Your task to perform on an android device: turn on sleep mode Image 0: 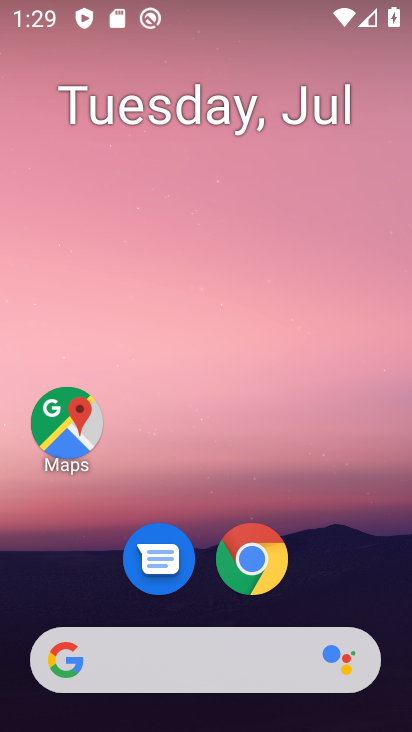
Step 0: drag from (354, 515) to (369, 164)
Your task to perform on an android device: turn on sleep mode Image 1: 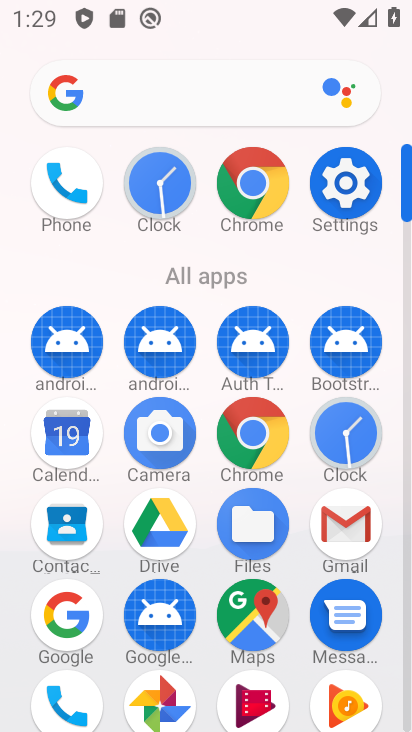
Step 1: click (356, 209)
Your task to perform on an android device: turn on sleep mode Image 2: 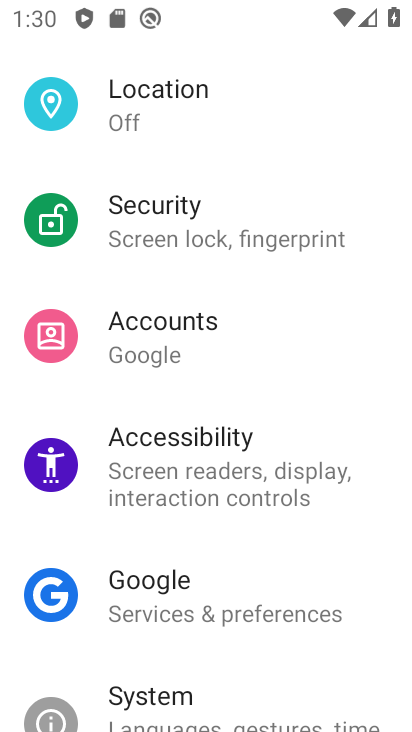
Step 2: drag from (372, 413) to (361, 312)
Your task to perform on an android device: turn on sleep mode Image 3: 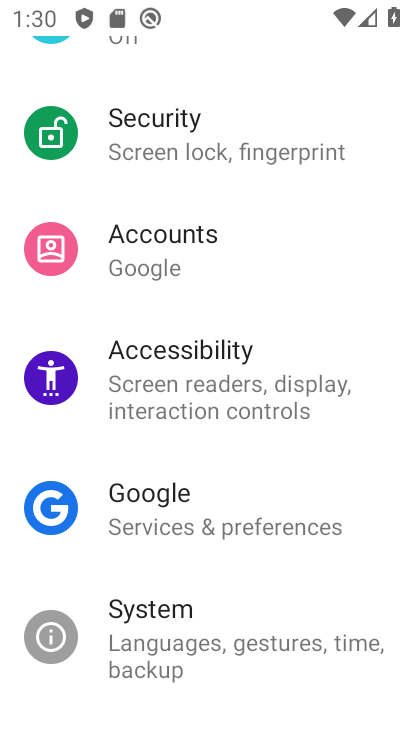
Step 3: drag from (351, 457) to (349, 345)
Your task to perform on an android device: turn on sleep mode Image 4: 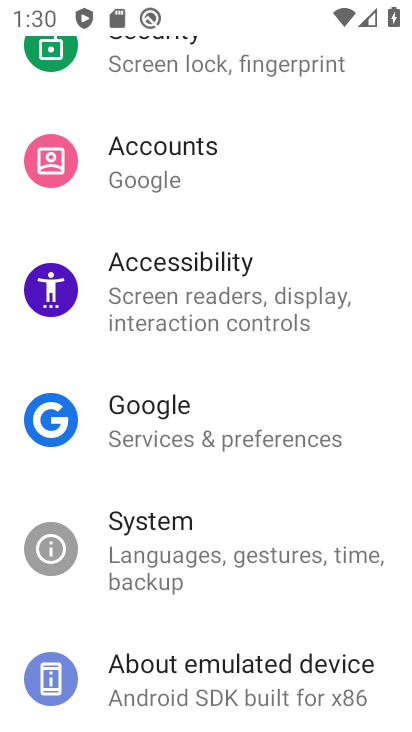
Step 4: drag from (372, 484) to (374, 367)
Your task to perform on an android device: turn on sleep mode Image 5: 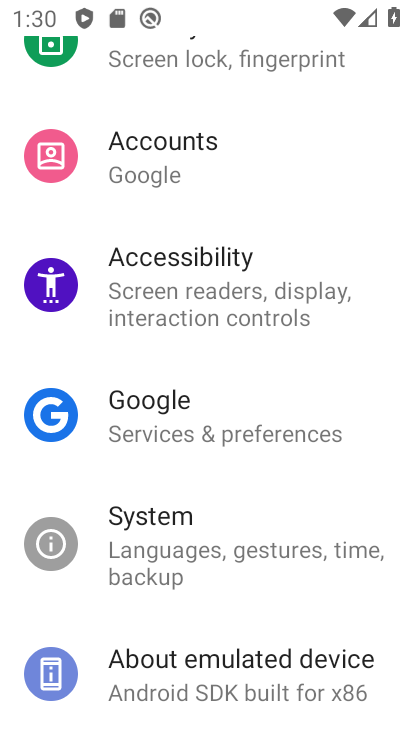
Step 5: drag from (352, 268) to (359, 360)
Your task to perform on an android device: turn on sleep mode Image 6: 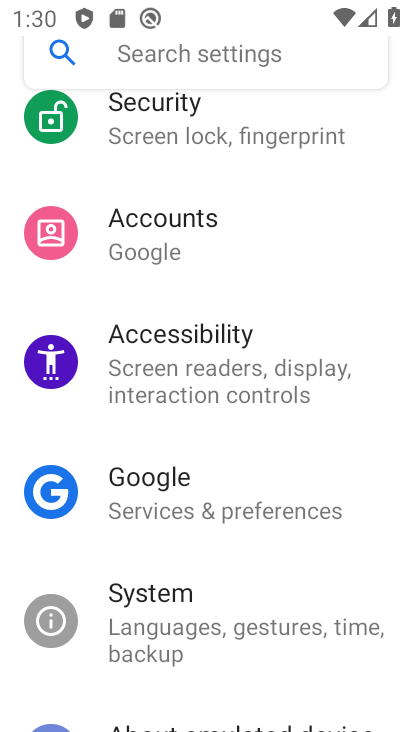
Step 6: drag from (357, 264) to (364, 349)
Your task to perform on an android device: turn on sleep mode Image 7: 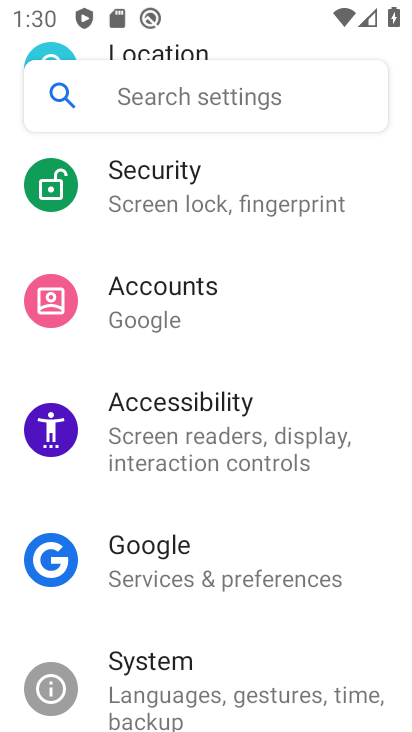
Step 7: drag from (364, 256) to (365, 321)
Your task to perform on an android device: turn on sleep mode Image 8: 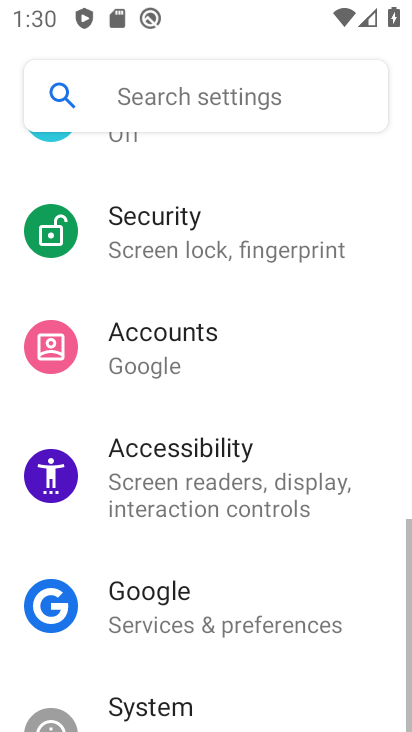
Step 8: drag from (365, 241) to (365, 335)
Your task to perform on an android device: turn on sleep mode Image 9: 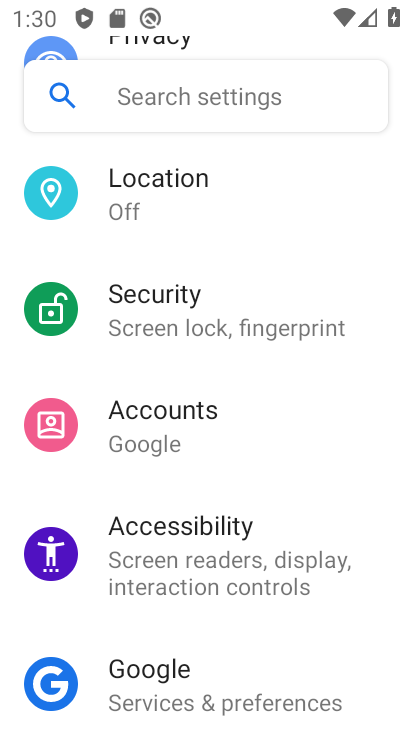
Step 9: drag from (364, 268) to (370, 351)
Your task to perform on an android device: turn on sleep mode Image 10: 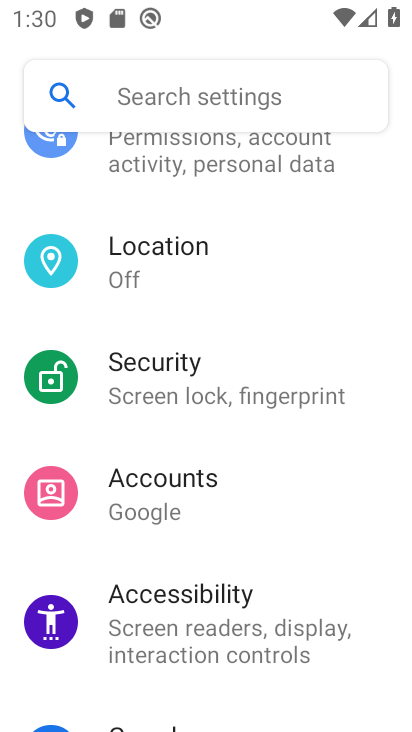
Step 10: drag from (353, 282) to (359, 364)
Your task to perform on an android device: turn on sleep mode Image 11: 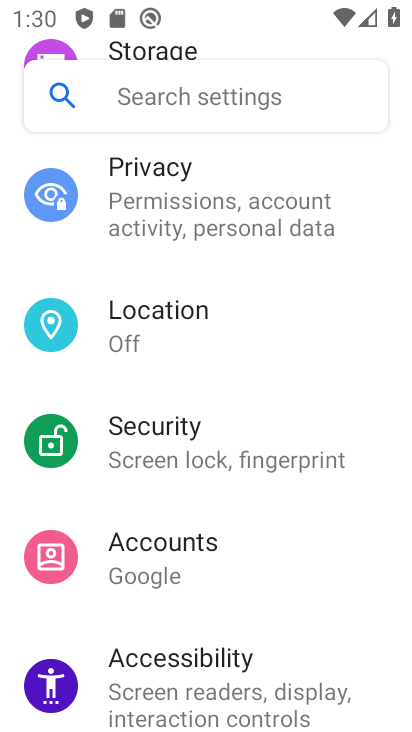
Step 11: drag from (371, 264) to (359, 374)
Your task to perform on an android device: turn on sleep mode Image 12: 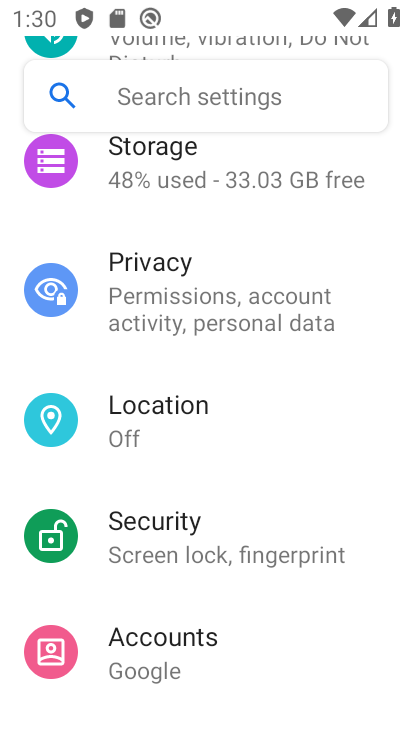
Step 12: drag from (356, 273) to (367, 372)
Your task to perform on an android device: turn on sleep mode Image 13: 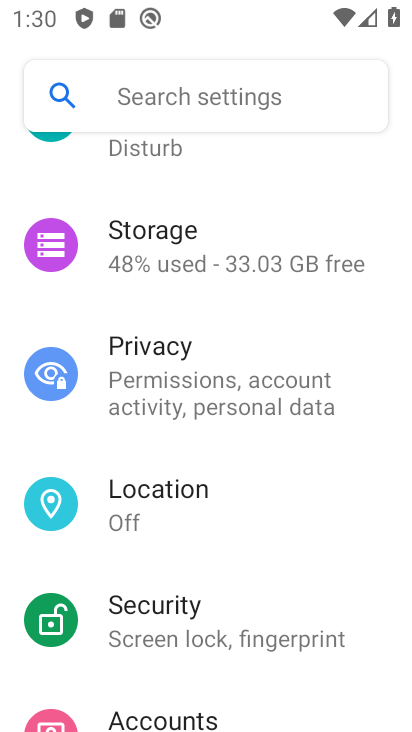
Step 13: drag from (377, 266) to (377, 390)
Your task to perform on an android device: turn on sleep mode Image 14: 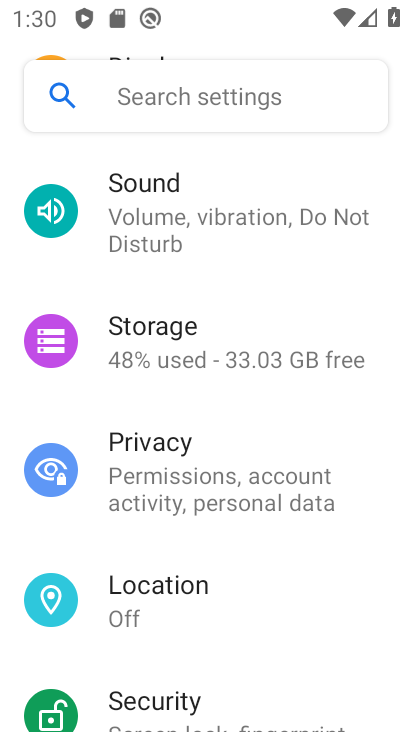
Step 14: drag from (375, 274) to (357, 373)
Your task to perform on an android device: turn on sleep mode Image 15: 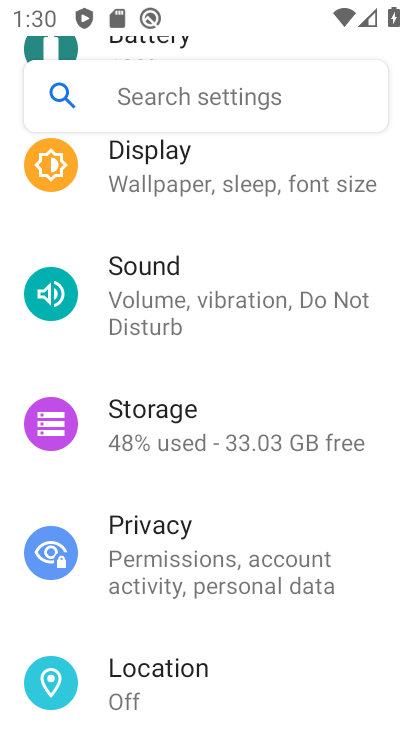
Step 15: drag from (369, 268) to (370, 380)
Your task to perform on an android device: turn on sleep mode Image 16: 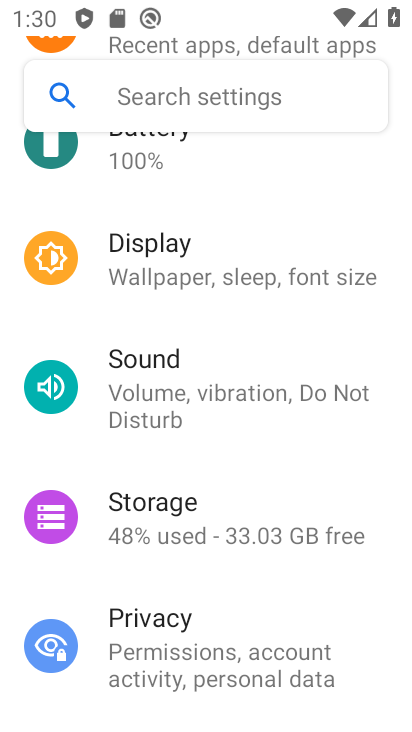
Step 16: click (305, 289)
Your task to perform on an android device: turn on sleep mode Image 17: 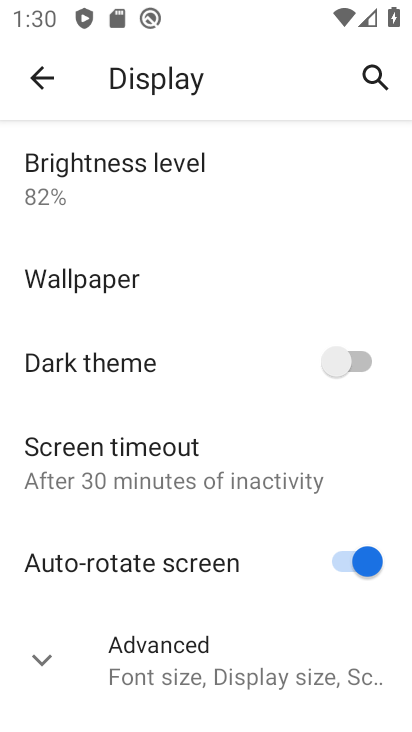
Step 17: click (236, 664)
Your task to perform on an android device: turn on sleep mode Image 18: 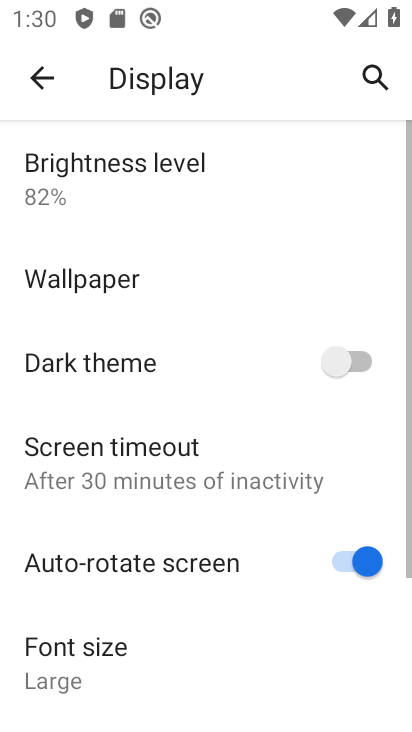
Step 18: task complete